Your task to perform on an android device: Open calendar and show me the first week of next month Image 0: 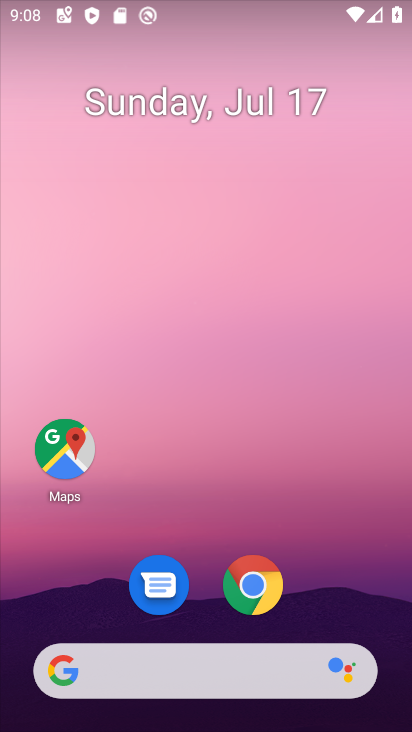
Step 0: drag from (290, 524) to (173, 48)
Your task to perform on an android device: Open calendar and show me the first week of next month Image 1: 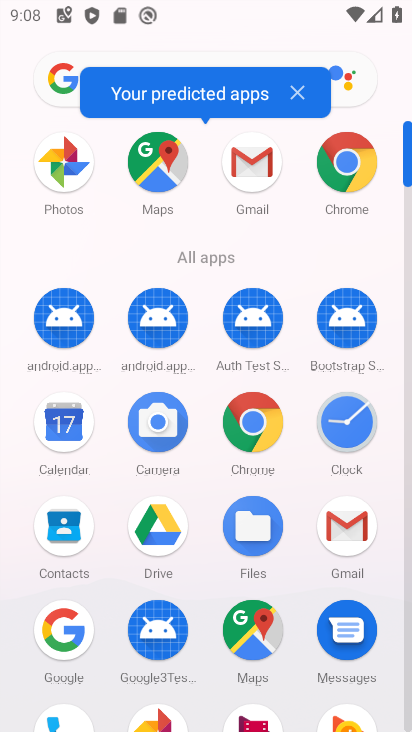
Step 1: click (69, 428)
Your task to perform on an android device: Open calendar and show me the first week of next month Image 2: 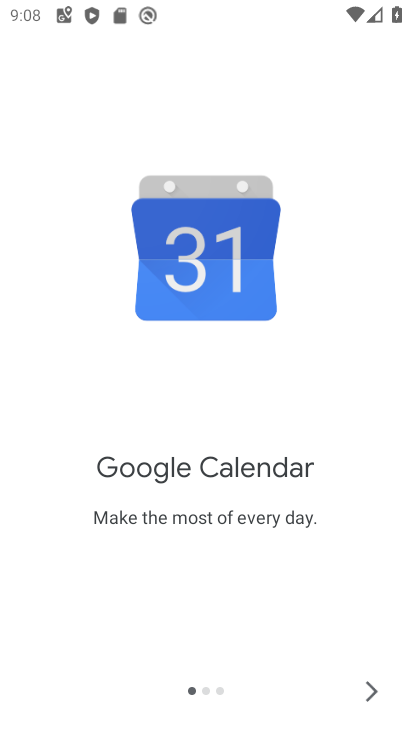
Step 2: click (370, 683)
Your task to perform on an android device: Open calendar and show me the first week of next month Image 3: 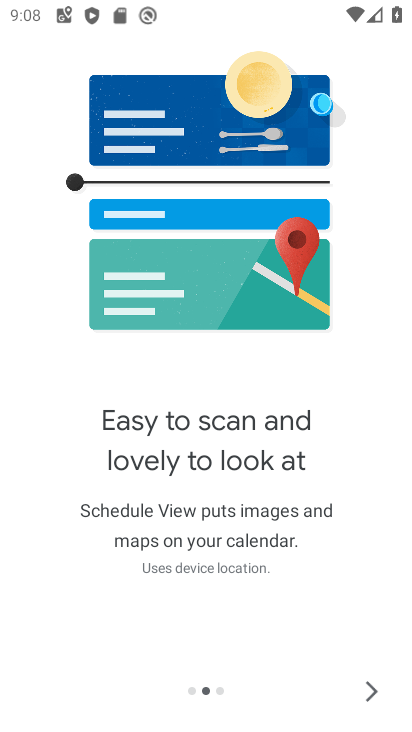
Step 3: click (366, 686)
Your task to perform on an android device: Open calendar and show me the first week of next month Image 4: 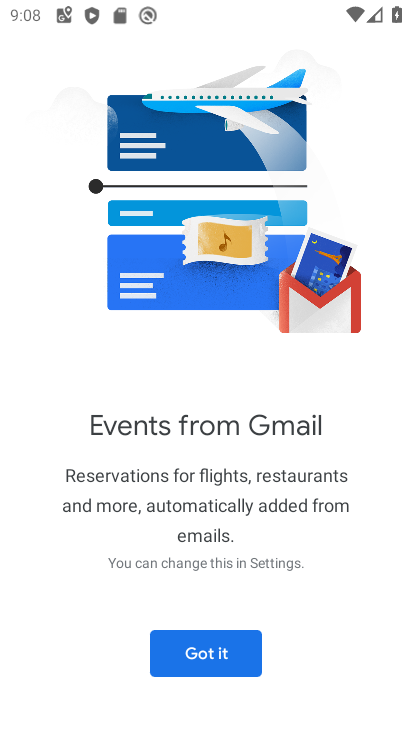
Step 4: click (238, 656)
Your task to perform on an android device: Open calendar and show me the first week of next month Image 5: 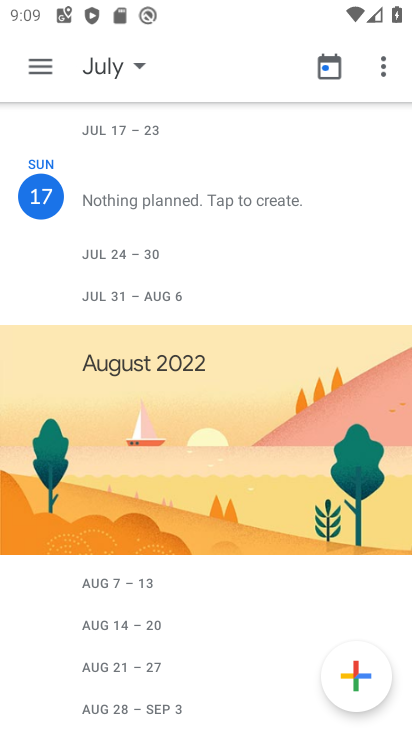
Step 5: click (38, 63)
Your task to perform on an android device: Open calendar and show me the first week of next month Image 6: 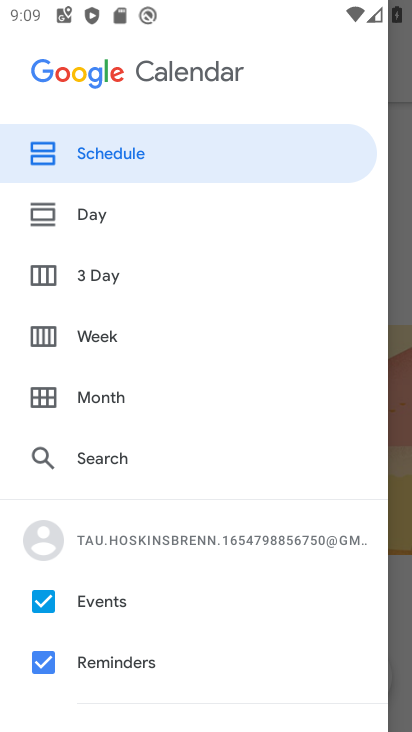
Step 6: click (49, 345)
Your task to perform on an android device: Open calendar and show me the first week of next month Image 7: 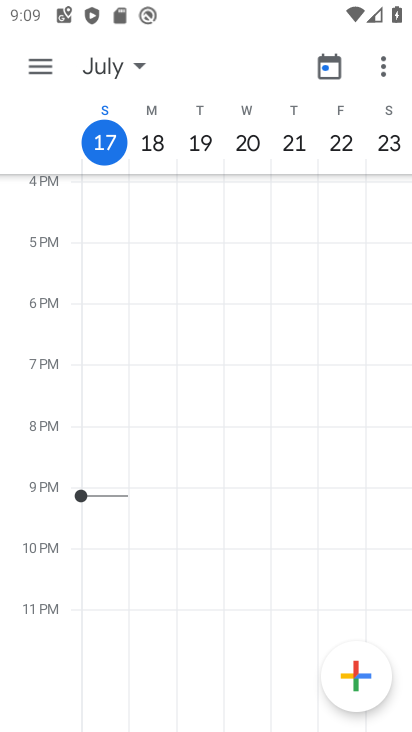
Step 7: task complete